Your task to perform on an android device: turn on the 12-hour format for clock Image 0: 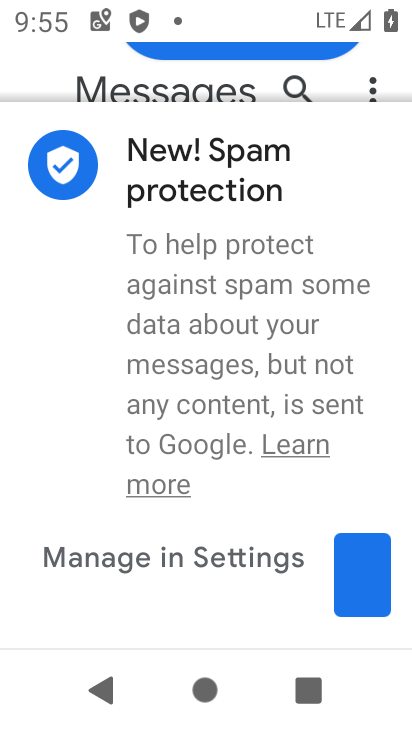
Step 0: press home button
Your task to perform on an android device: turn on the 12-hour format for clock Image 1: 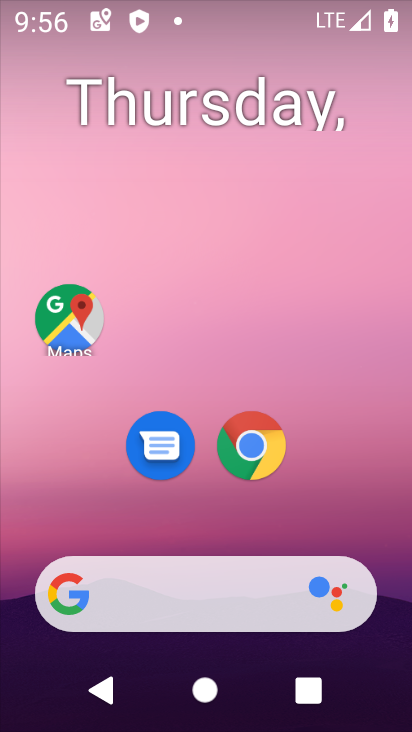
Step 1: drag from (204, 552) to (280, 93)
Your task to perform on an android device: turn on the 12-hour format for clock Image 2: 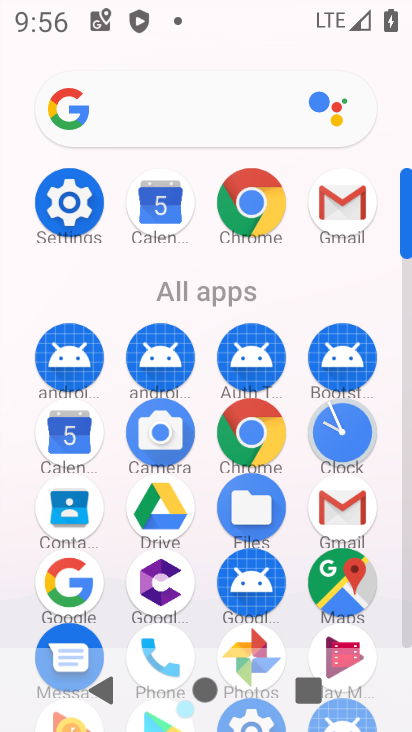
Step 2: click (347, 433)
Your task to perform on an android device: turn on the 12-hour format for clock Image 3: 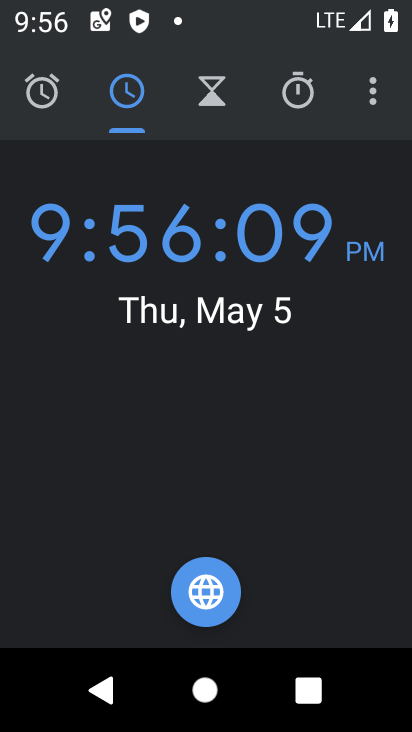
Step 3: click (369, 101)
Your task to perform on an android device: turn on the 12-hour format for clock Image 4: 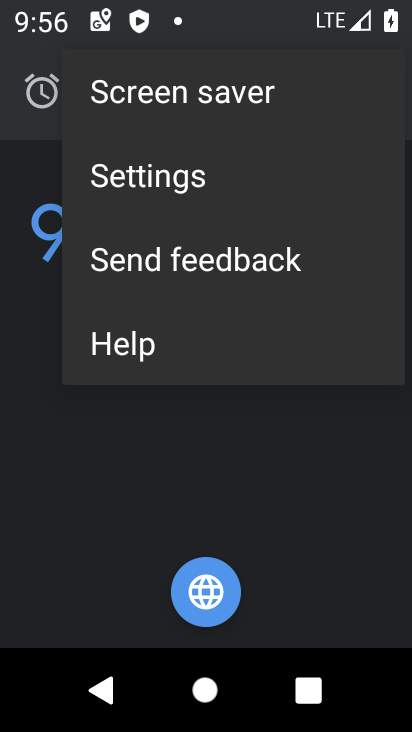
Step 4: click (185, 167)
Your task to perform on an android device: turn on the 12-hour format for clock Image 5: 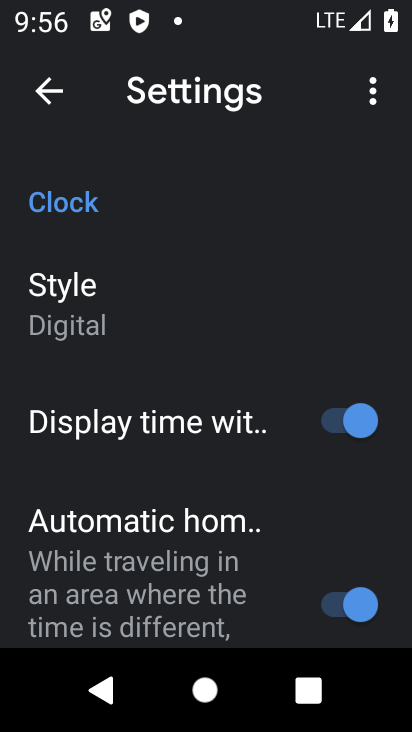
Step 5: drag from (120, 562) to (124, 215)
Your task to perform on an android device: turn on the 12-hour format for clock Image 6: 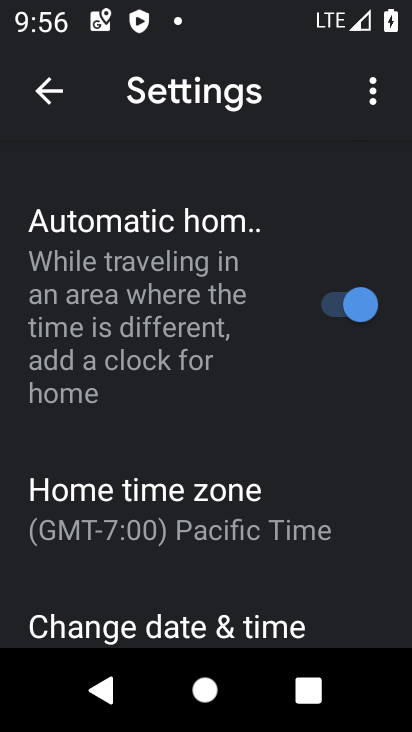
Step 6: drag from (104, 551) to (137, 226)
Your task to perform on an android device: turn on the 12-hour format for clock Image 7: 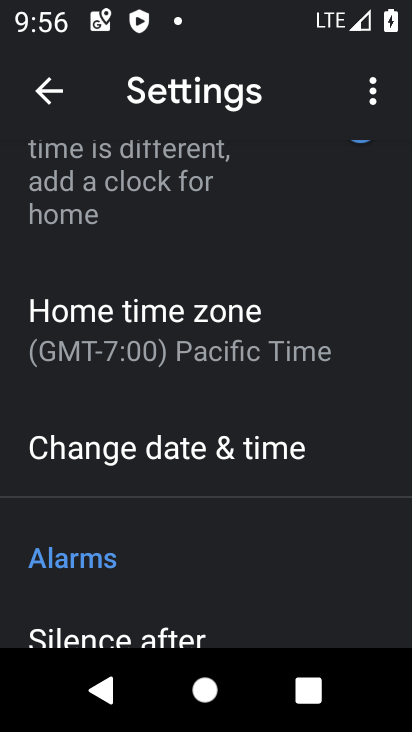
Step 7: click (173, 460)
Your task to perform on an android device: turn on the 12-hour format for clock Image 8: 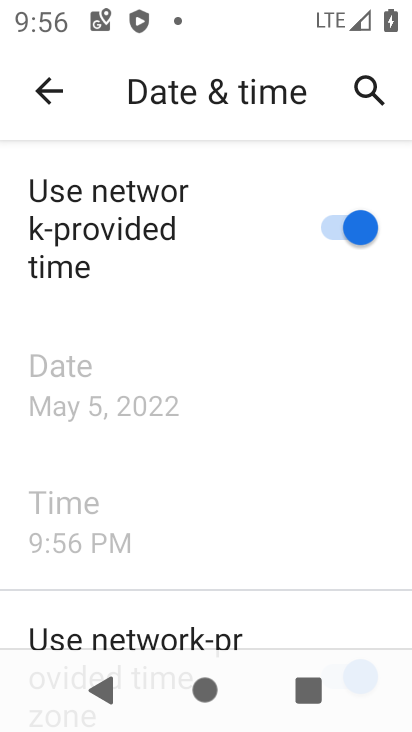
Step 8: task complete